Your task to perform on an android device: Go to Google Image 0: 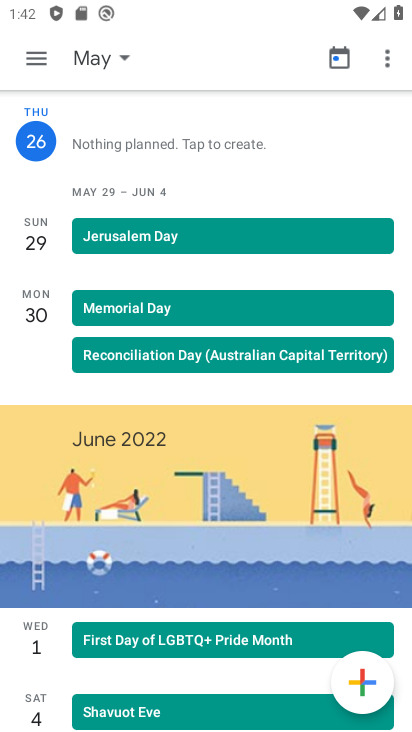
Step 0: press back button
Your task to perform on an android device: Go to Google Image 1: 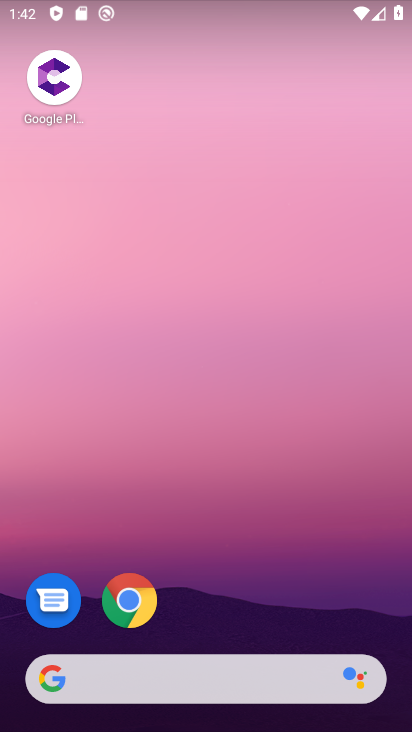
Step 1: drag from (249, 551) to (226, 18)
Your task to perform on an android device: Go to Google Image 2: 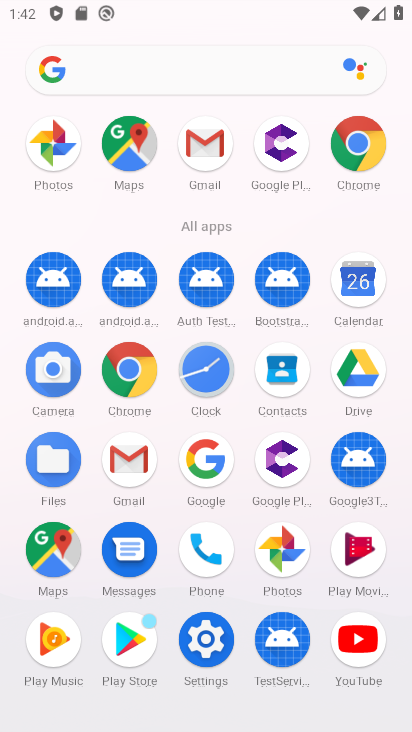
Step 2: click (125, 367)
Your task to perform on an android device: Go to Google Image 3: 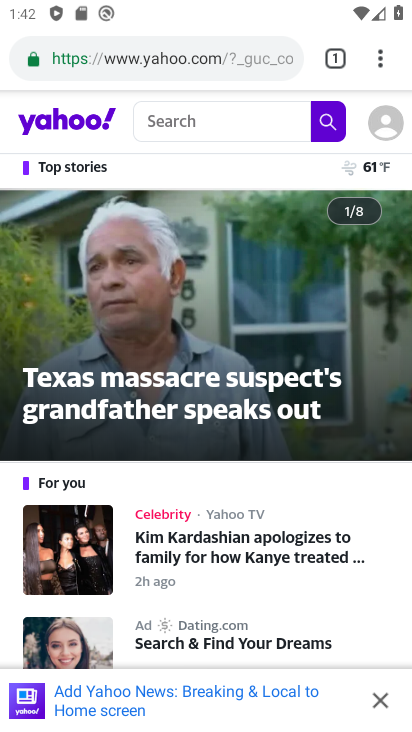
Step 3: click (196, 61)
Your task to perform on an android device: Go to Google Image 4: 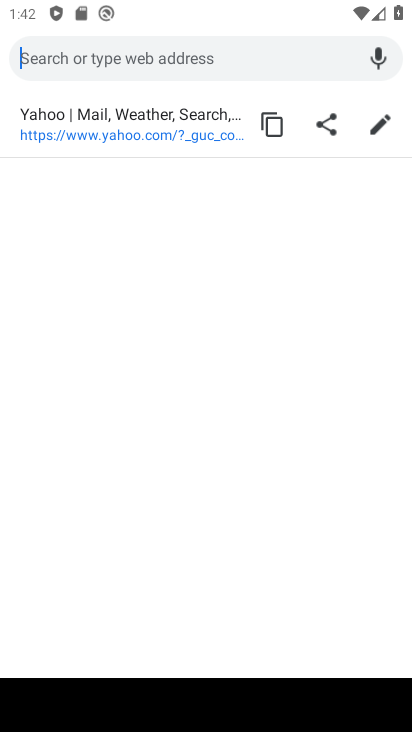
Step 4: type "Google"
Your task to perform on an android device: Go to Google Image 5: 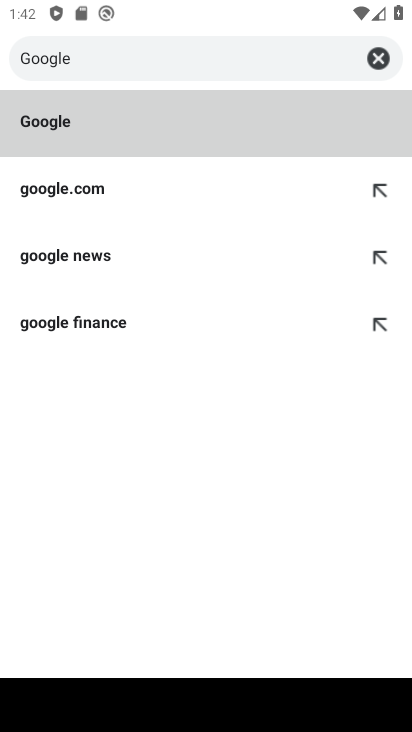
Step 5: click (86, 176)
Your task to perform on an android device: Go to Google Image 6: 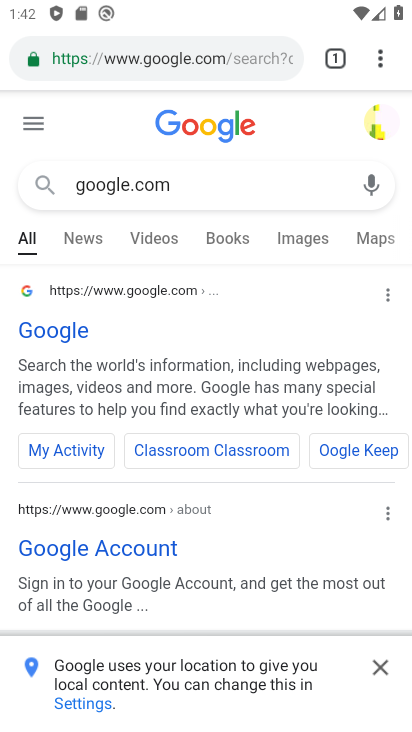
Step 6: click (95, 233)
Your task to perform on an android device: Go to Google Image 7: 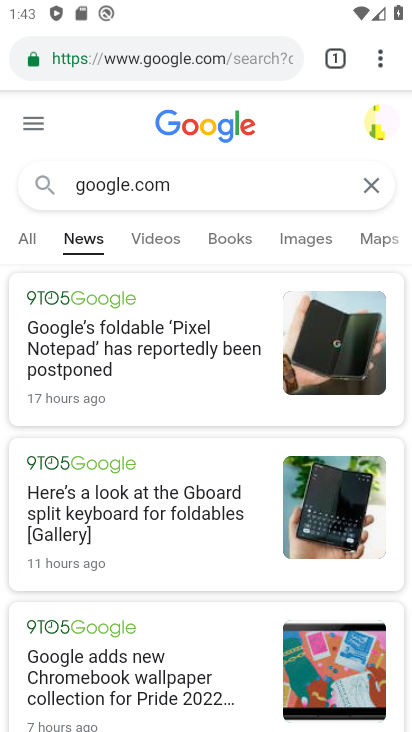
Step 7: drag from (148, 592) to (180, 255)
Your task to perform on an android device: Go to Google Image 8: 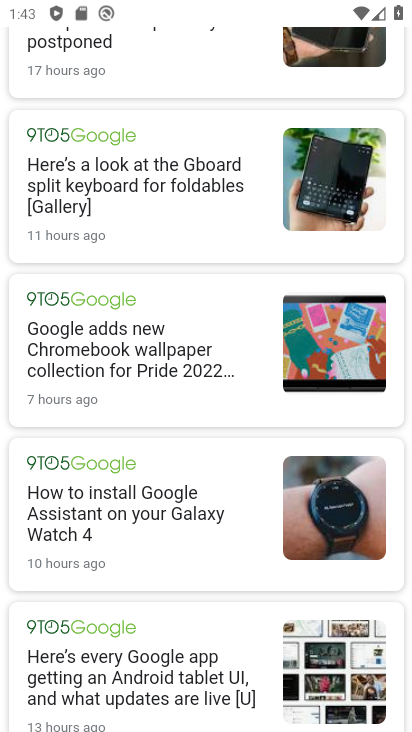
Step 8: drag from (187, 358) to (184, 181)
Your task to perform on an android device: Go to Google Image 9: 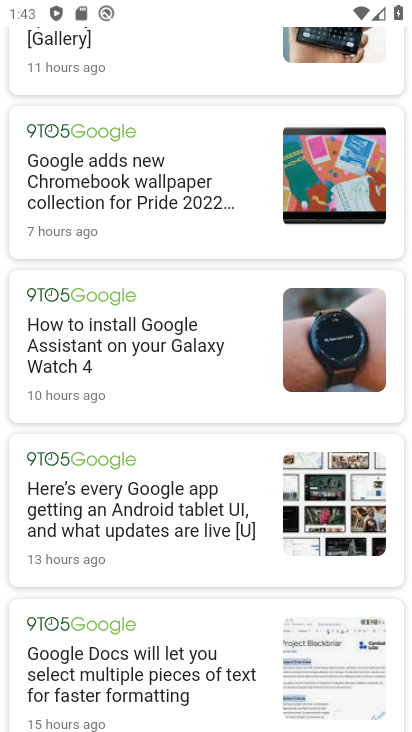
Step 9: drag from (166, 262) to (160, 720)
Your task to perform on an android device: Go to Google Image 10: 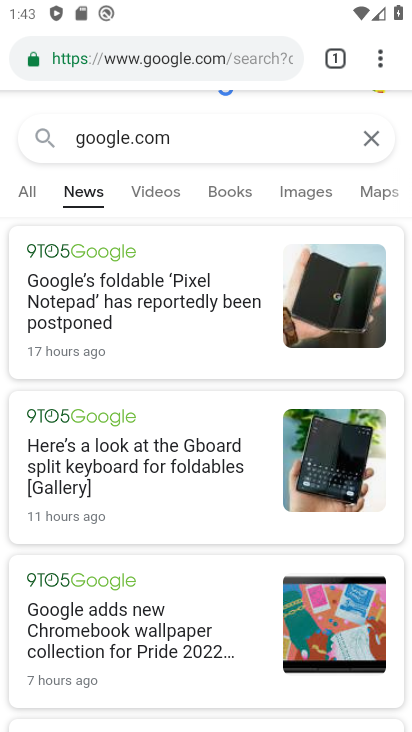
Step 10: click (19, 193)
Your task to perform on an android device: Go to Google Image 11: 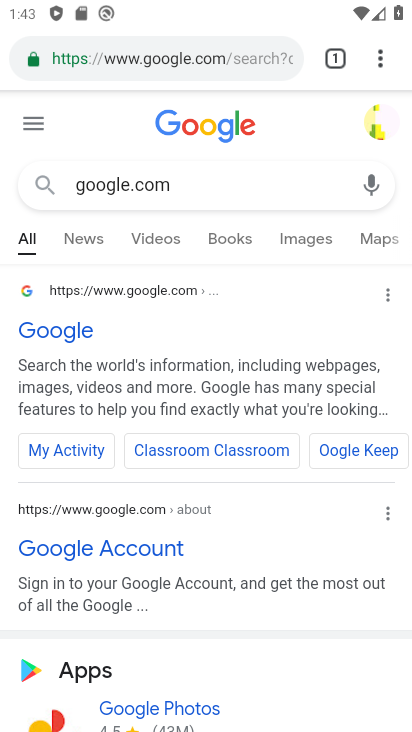
Step 11: click (60, 334)
Your task to perform on an android device: Go to Google Image 12: 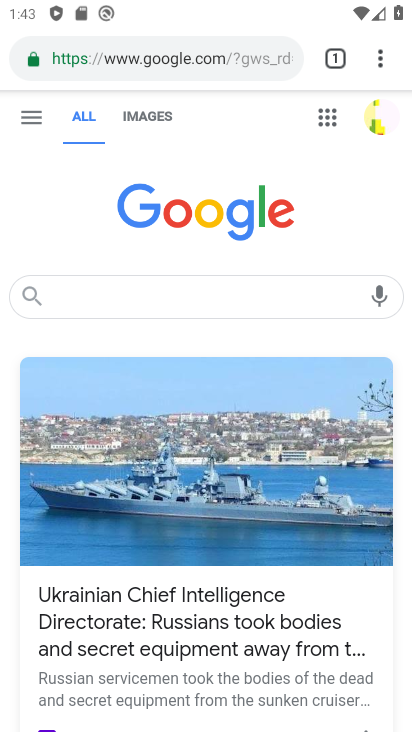
Step 12: task complete